Your task to perform on an android device: Go to privacy settings Image 0: 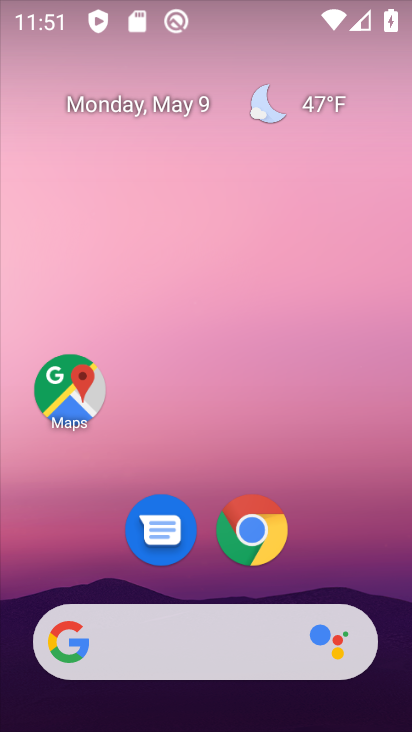
Step 0: drag from (331, 537) to (360, 151)
Your task to perform on an android device: Go to privacy settings Image 1: 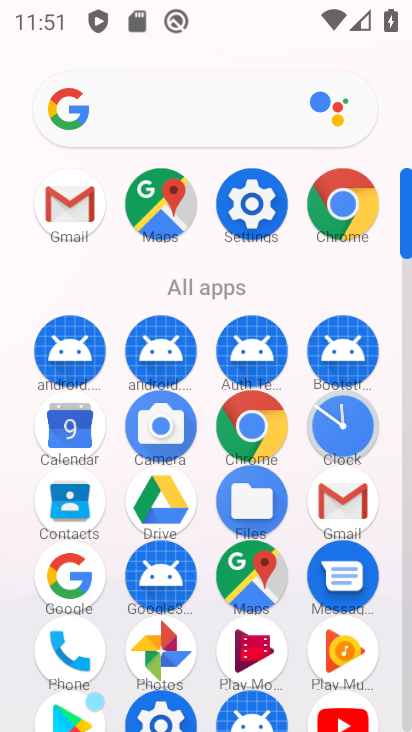
Step 1: click (268, 197)
Your task to perform on an android device: Go to privacy settings Image 2: 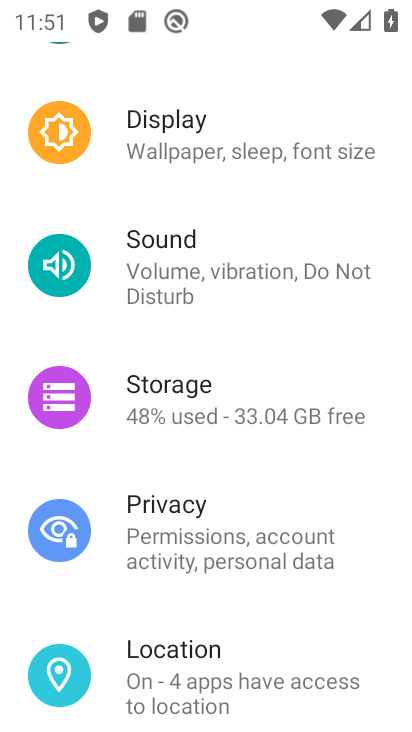
Step 2: click (226, 540)
Your task to perform on an android device: Go to privacy settings Image 3: 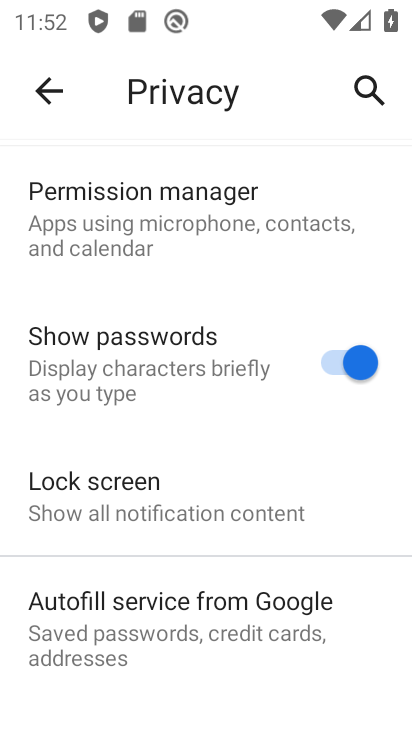
Step 3: task complete